Your task to perform on an android device: move an email to a new category in the gmail app Image 0: 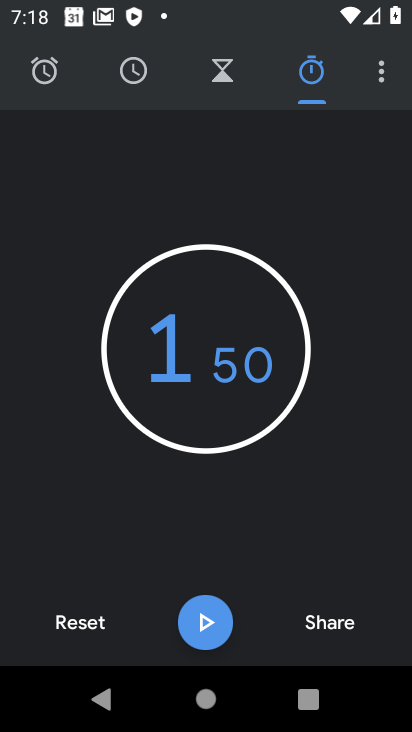
Step 0: press home button
Your task to perform on an android device: move an email to a new category in the gmail app Image 1: 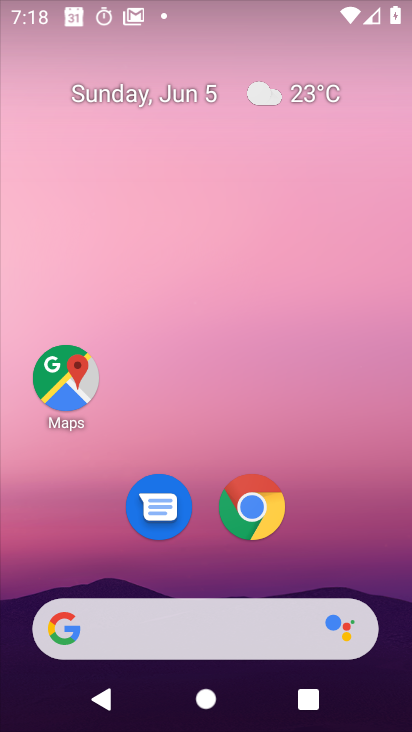
Step 1: drag from (231, 651) to (231, 39)
Your task to perform on an android device: move an email to a new category in the gmail app Image 2: 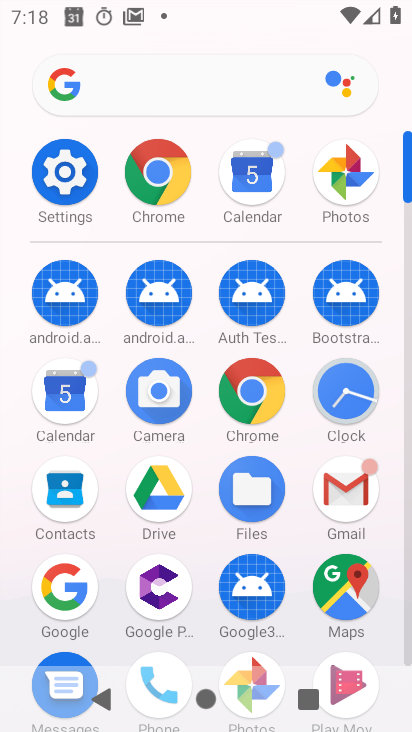
Step 2: click (333, 514)
Your task to perform on an android device: move an email to a new category in the gmail app Image 3: 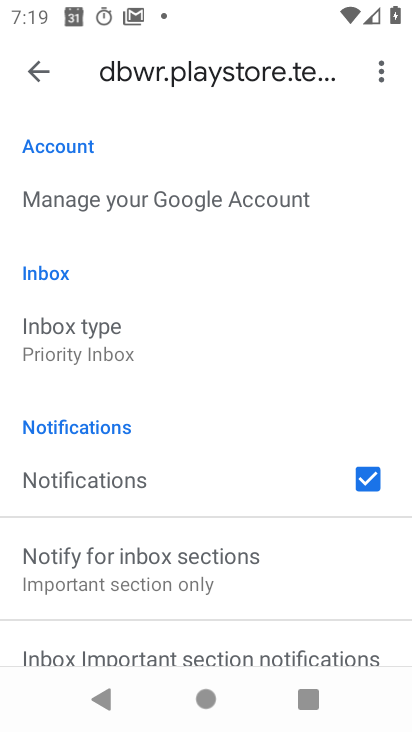
Step 3: click (98, 325)
Your task to perform on an android device: move an email to a new category in the gmail app Image 4: 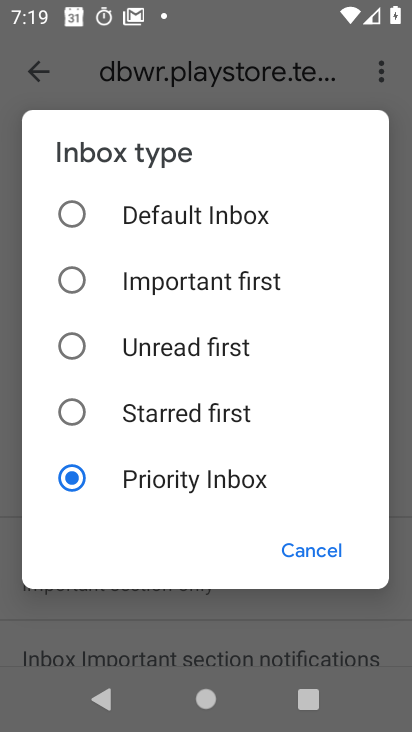
Step 4: click (179, 220)
Your task to perform on an android device: move an email to a new category in the gmail app Image 5: 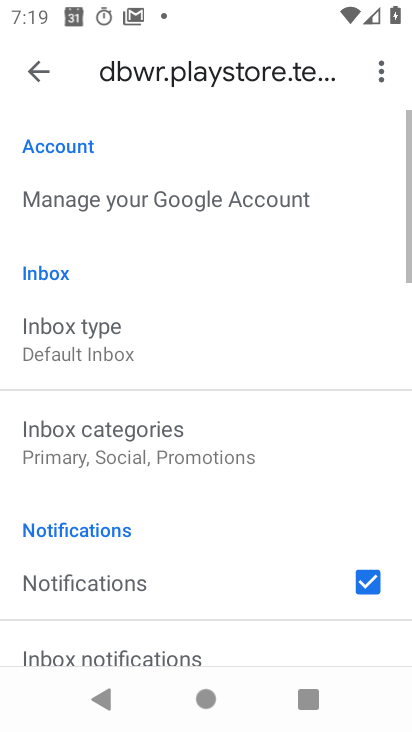
Step 5: click (115, 426)
Your task to perform on an android device: move an email to a new category in the gmail app Image 6: 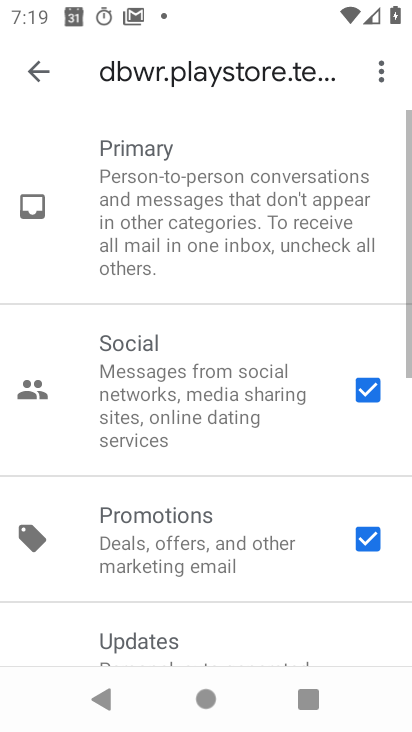
Step 6: click (355, 532)
Your task to perform on an android device: move an email to a new category in the gmail app Image 7: 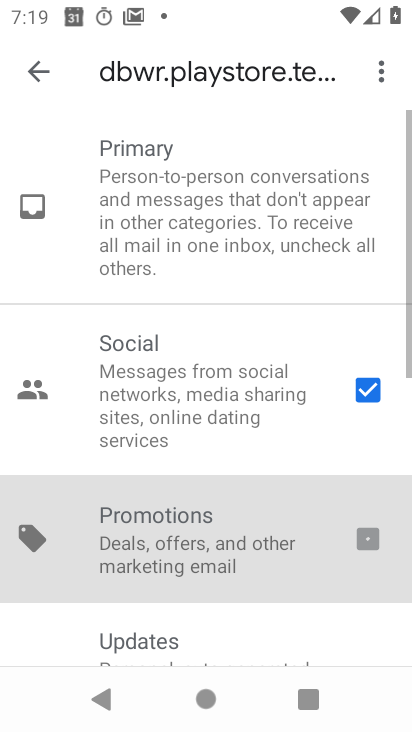
Step 7: click (358, 405)
Your task to perform on an android device: move an email to a new category in the gmail app Image 8: 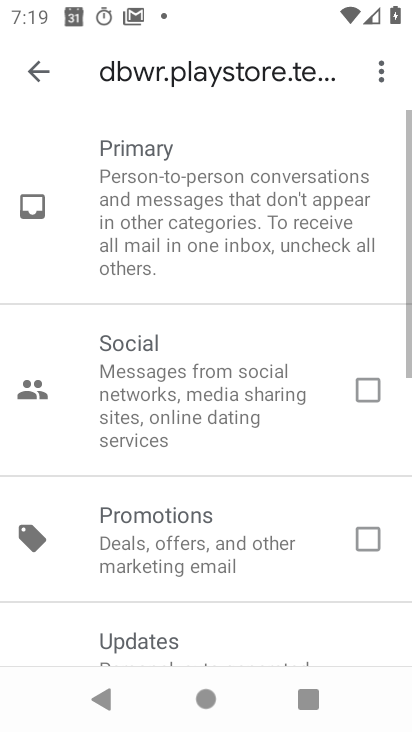
Step 8: task complete